Your task to perform on an android device: Open battery settings Image 0: 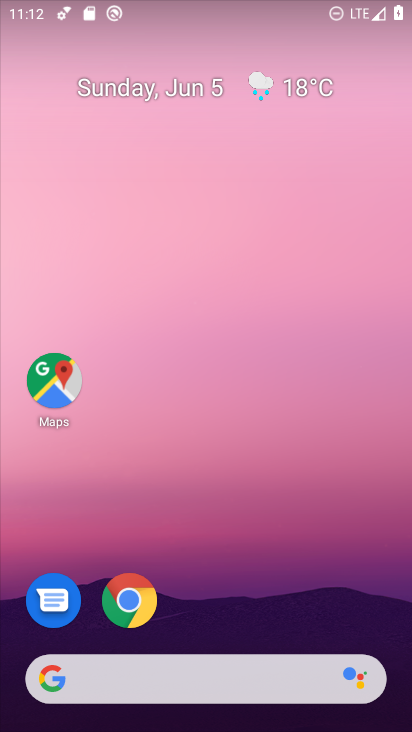
Step 0: drag from (219, 634) to (233, 229)
Your task to perform on an android device: Open battery settings Image 1: 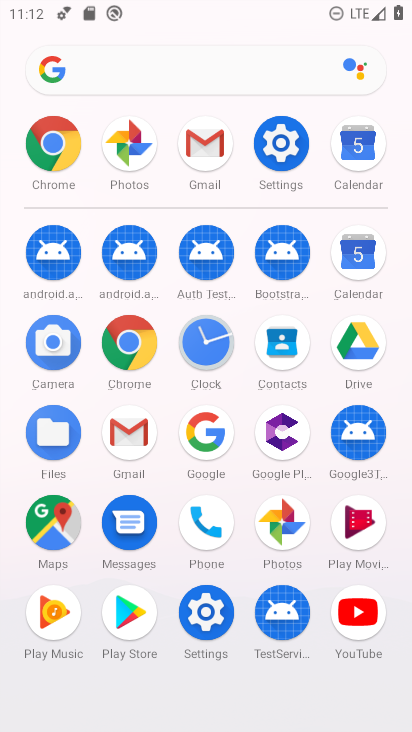
Step 1: click (305, 157)
Your task to perform on an android device: Open battery settings Image 2: 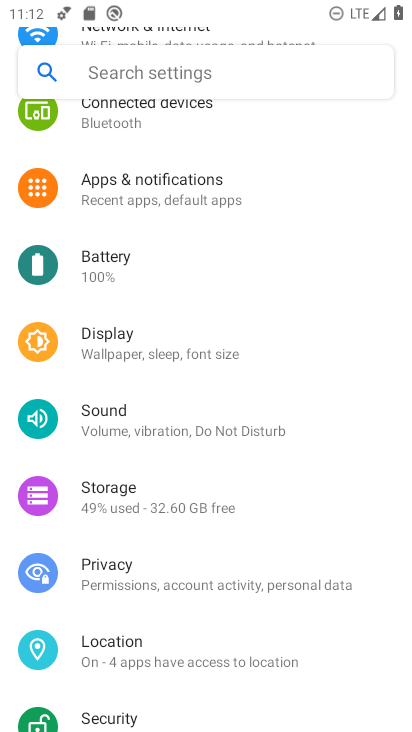
Step 2: click (180, 278)
Your task to perform on an android device: Open battery settings Image 3: 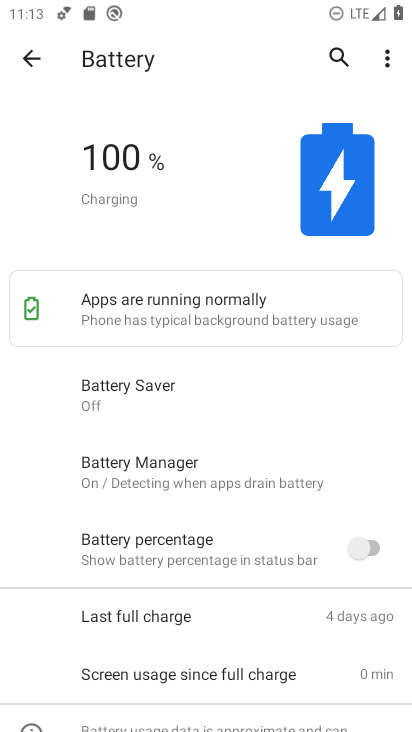
Step 3: task complete